Your task to perform on an android device: Open the stopwatch Image 0: 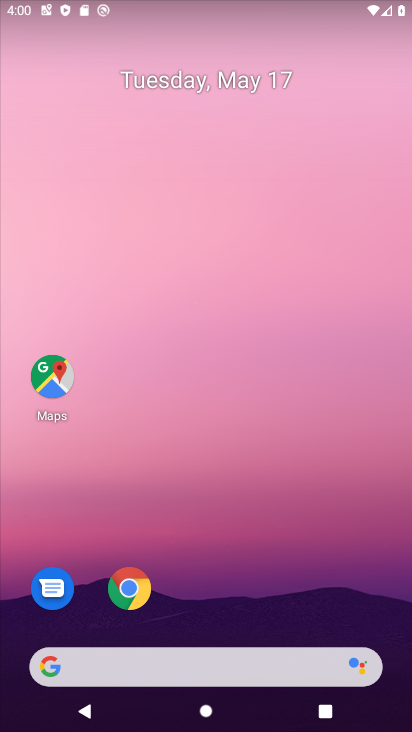
Step 0: drag from (236, 564) to (218, 122)
Your task to perform on an android device: Open the stopwatch Image 1: 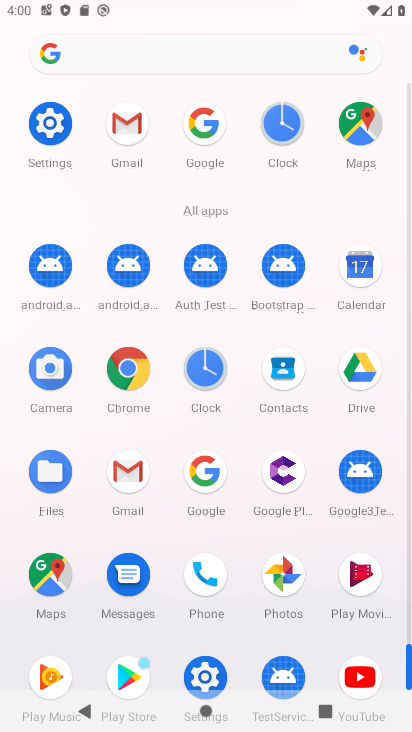
Step 1: drag from (239, 550) to (260, 380)
Your task to perform on an android device: Open the stopwatch Image 2: 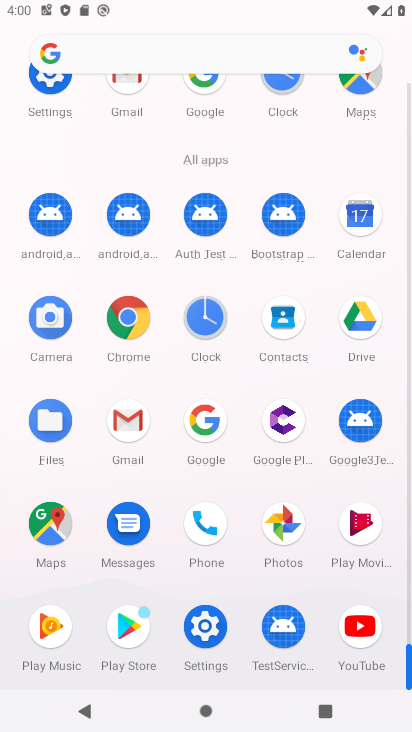
Step 2: click (208, 317)
Your task to perform on an android device: Open the stopwatch Image 3: 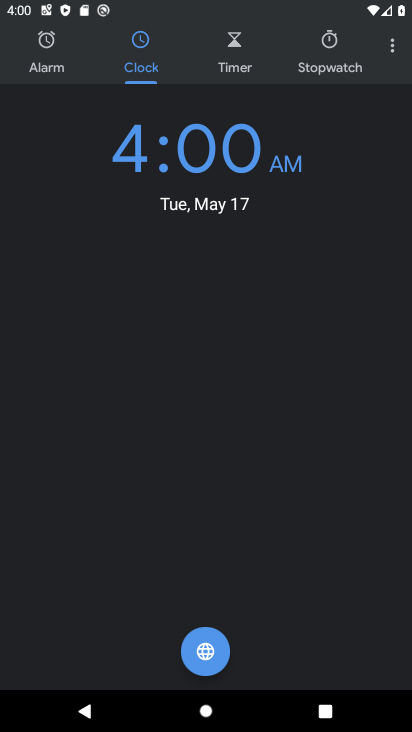
Step 3: click (327, 46)
Your task to perform on an android device: Open the stopwatch Image 4: 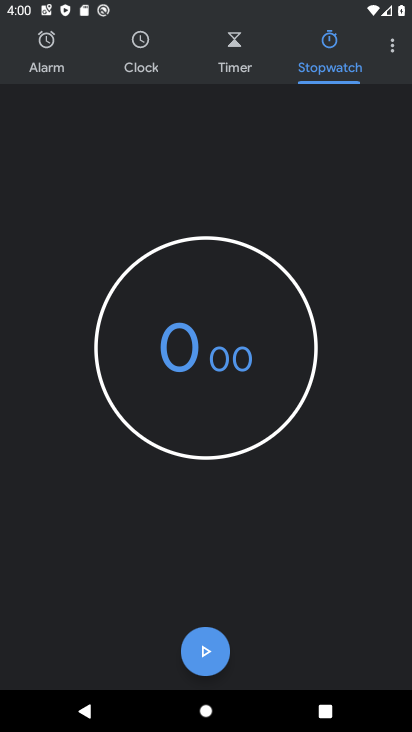
Step 4: task complete